Your task to perform on an android device: Go to CNN.com Image 0: 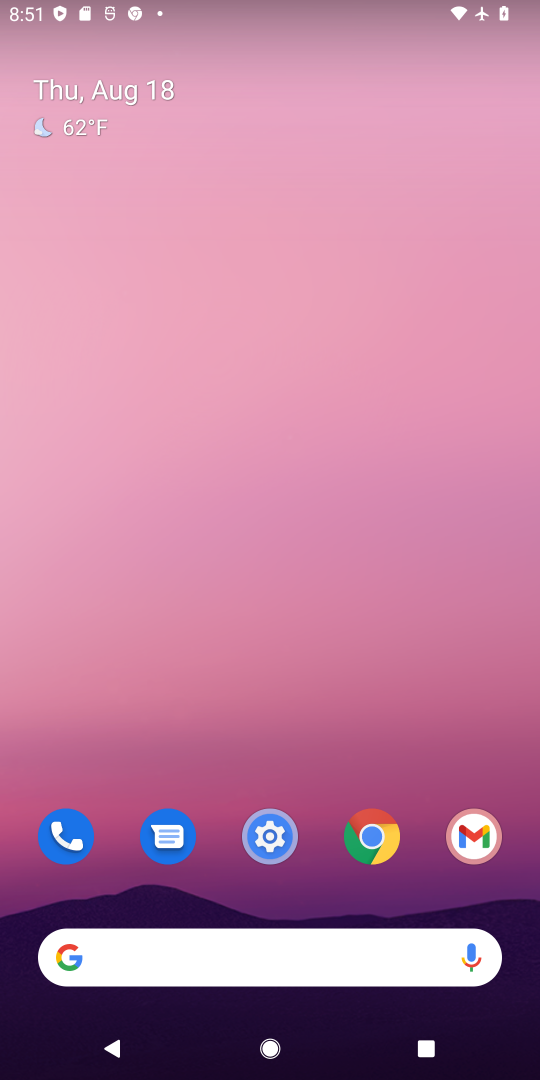
Step 0: drag from (296, 757) to (360, 12)
Your task to perform on an android device: Go to CNN.com Image 1: 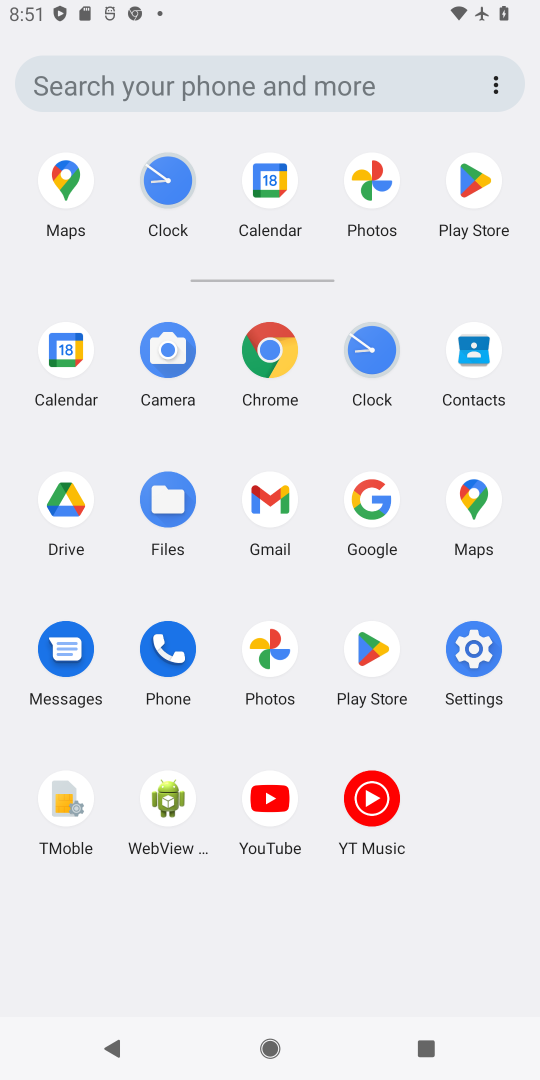
Step 1: click (262, 358)
Your task to perform on an android device: Go to CNN.com Image 2: 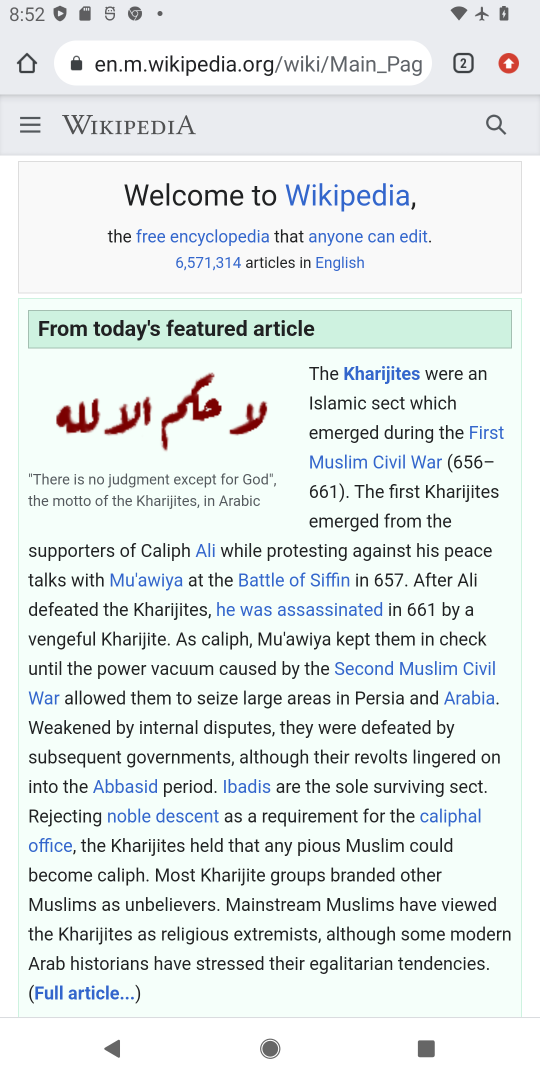
Step 2: click (337, 63)
Your task to perform on an android device: Go to CNN.com Image 3: 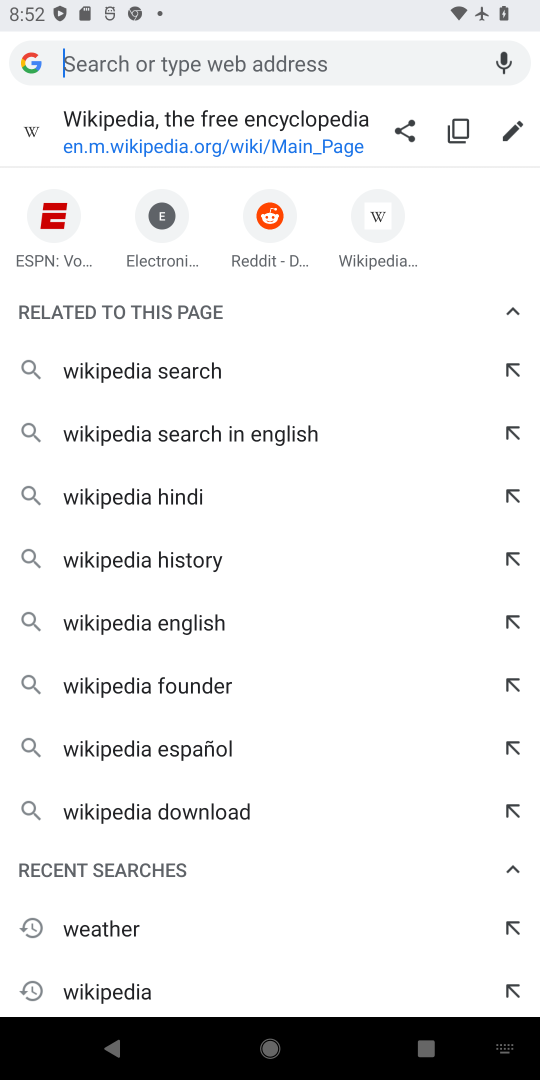
Step 3: type "cnn"
Your task to perform on an android device: Go to CNN.com Image 4: 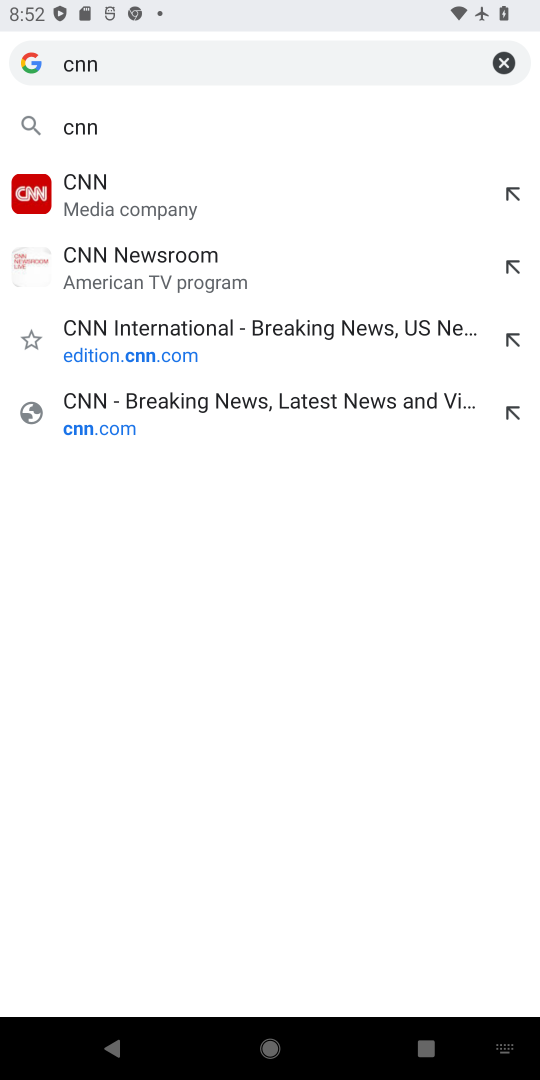
Step 4: click (161, 218)
Your task to perform on an android device: Go to CNN.com Image 5: 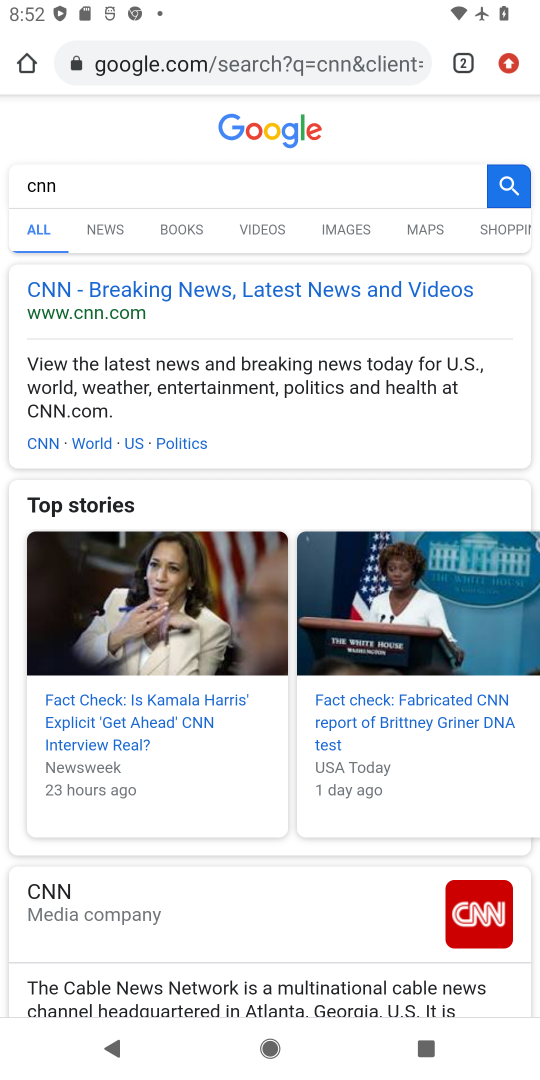
Step 5: click (110, 297)
Your task to perform on an android device: Go to CNN.com Image 6: 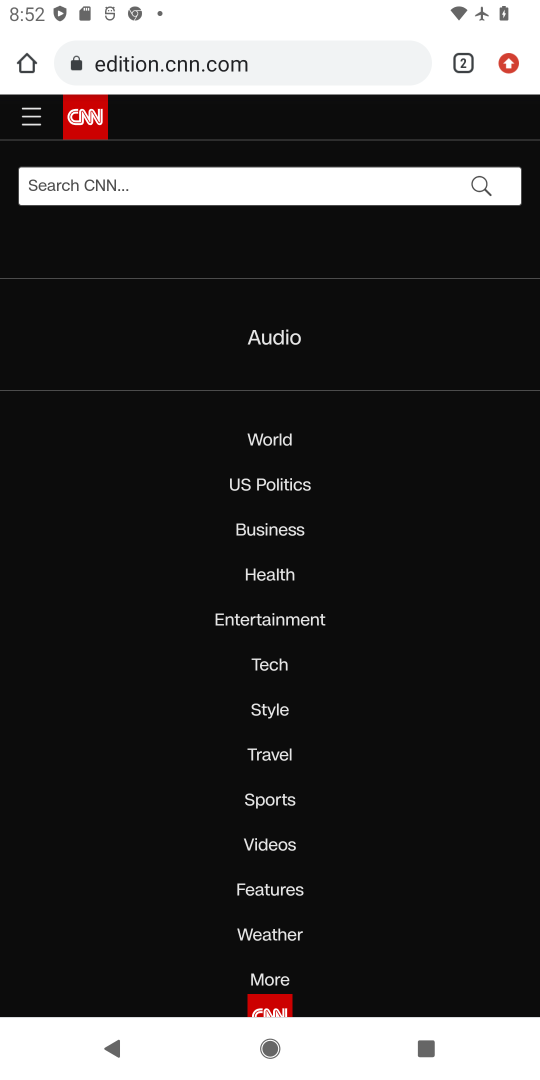
Step 6: task complete